Your task to perform on an android device: turn on the 12-hour format for clock Image 0: 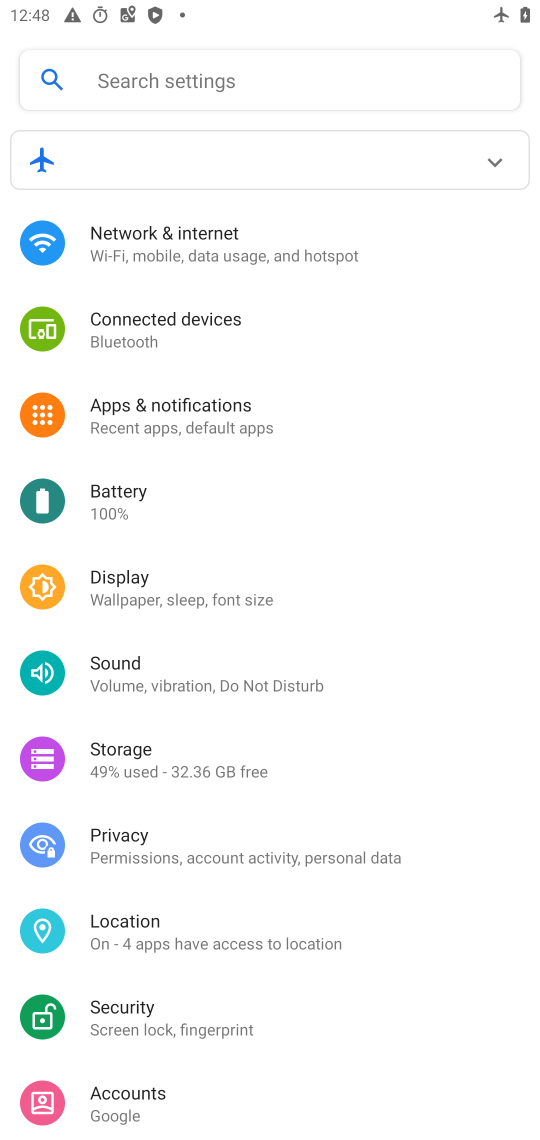
Step 0: press home button
Your task to perform on an android device: turn on the 12-hour format for clock Image 1: 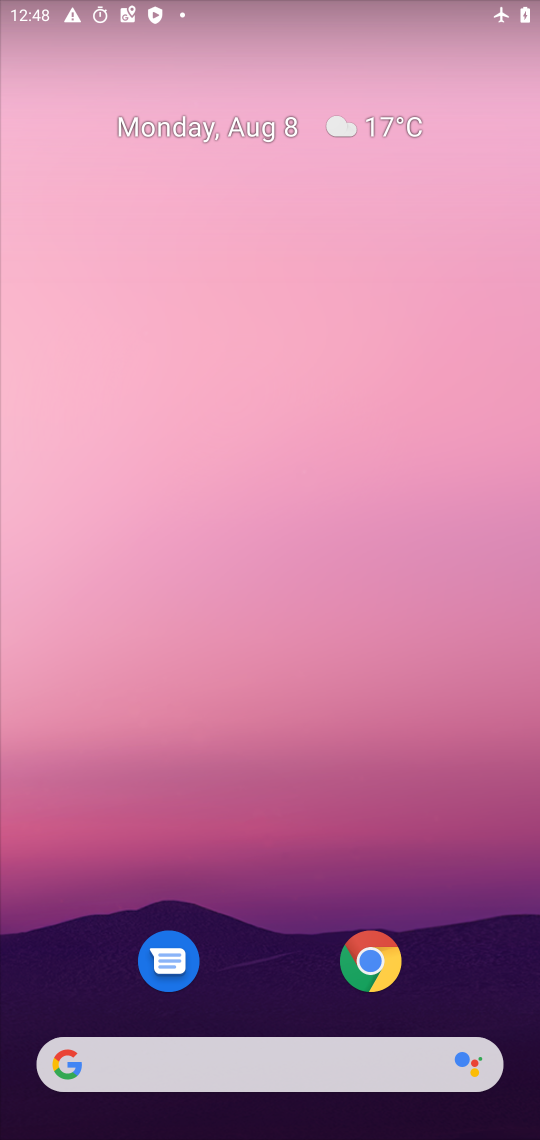
Step 1: drag from (215, 1054) to (180, 187)
Your task to perform on an android device: turn on the 12-hour format for clock Image 2: 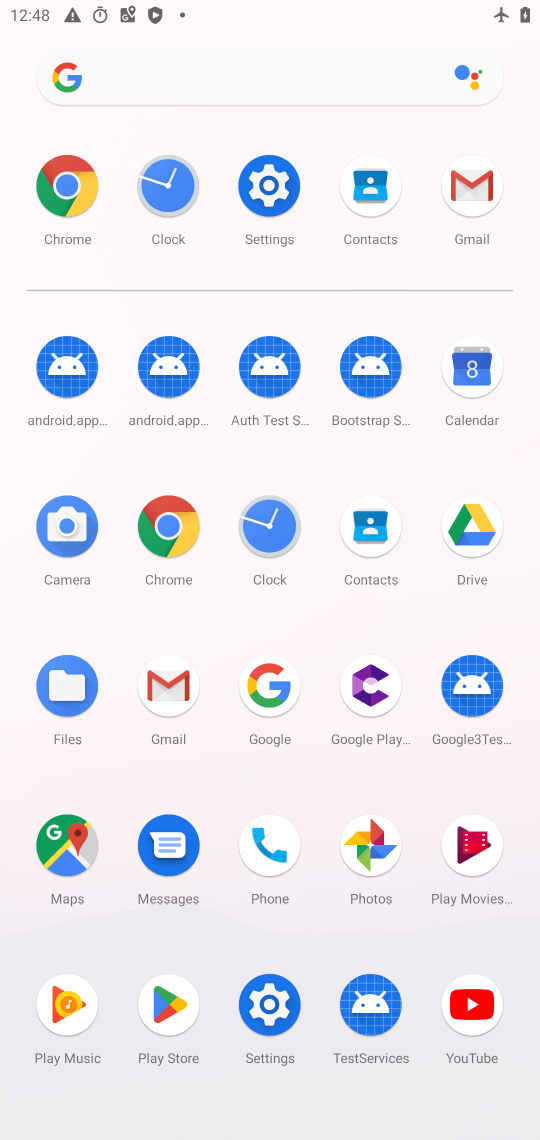
Step 2: click (258, 536)
Your task to perform on an android device: turn on the 12-hour format for clock Image 3: 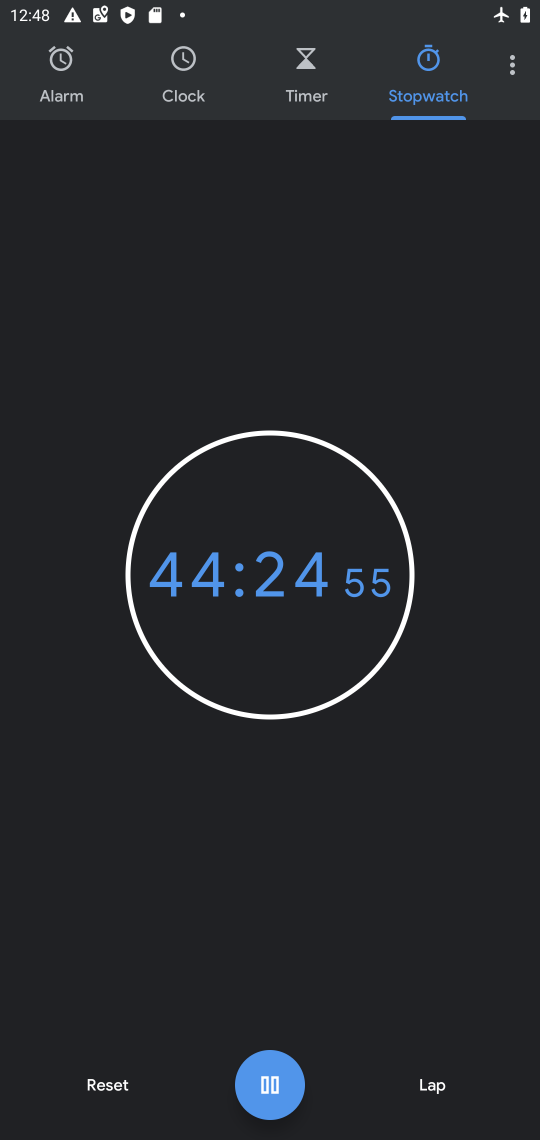
Step 3: click (510, 70)
Your task to perform on an android device: turn on the 12-hour format for clock Image 4: 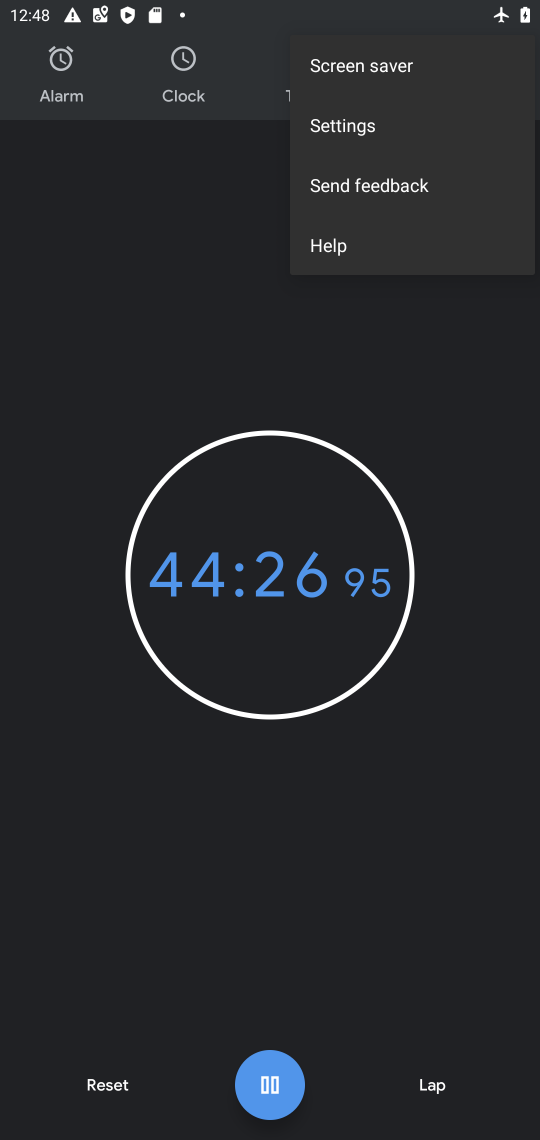
Step 4: click (388, 125)
Your task to perform on an android device: turn on the 12-hour format for clock Image 5: 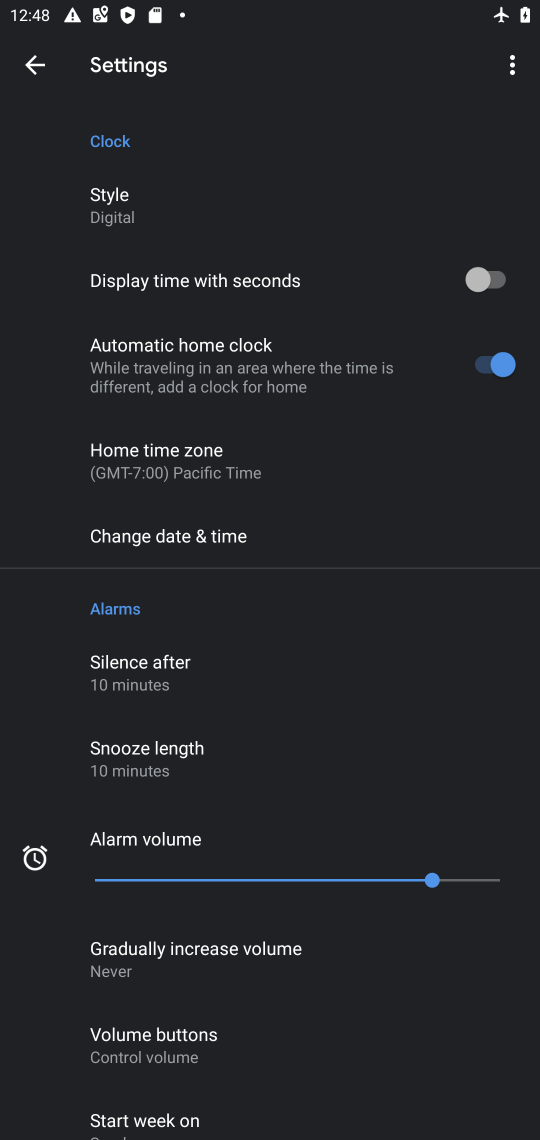
Step 5: click (272, 548)
Your task to perform on an android device: turn on the 12-hour format for clock Image 6: 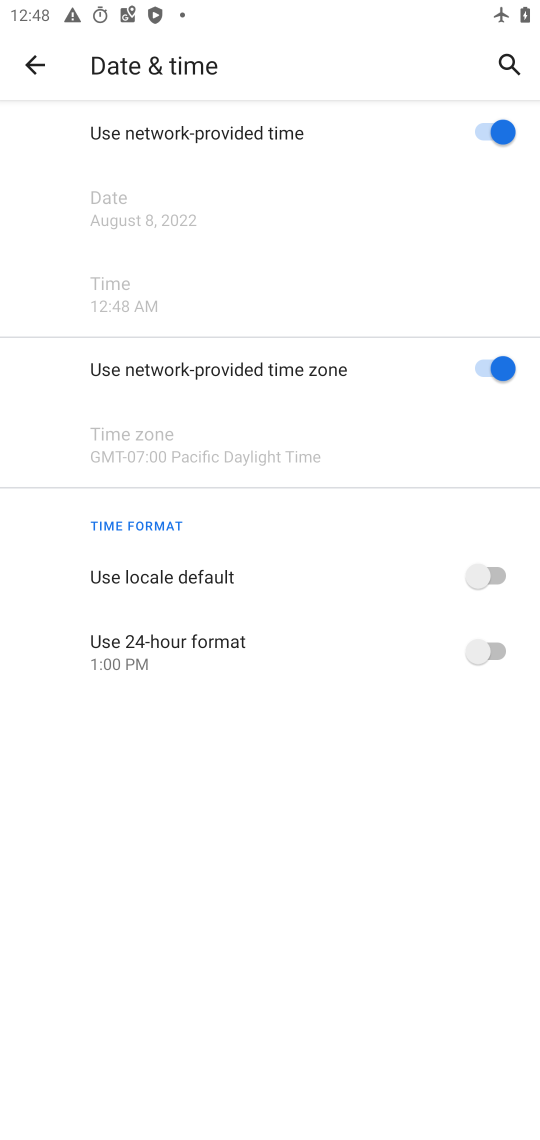
Step 6: task complete